Your task to perform on an android device: Go to CNN.com Image 0: 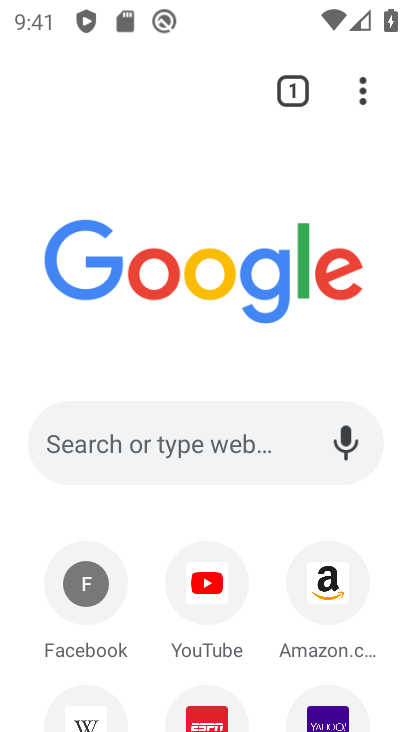
Step 0: drag from (243, 691) to (245, 306)
Your task to perform on an android device: Go to CNN.com Image 1: 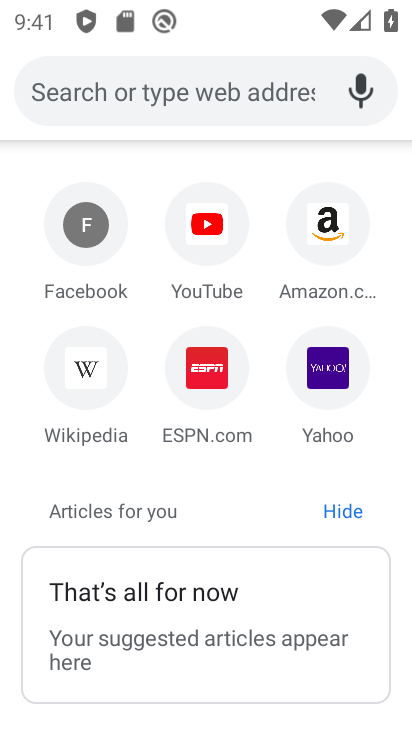
Step 1: click (157, 87)
Your task to perform on an android device: Go to CNN.com Image 2: 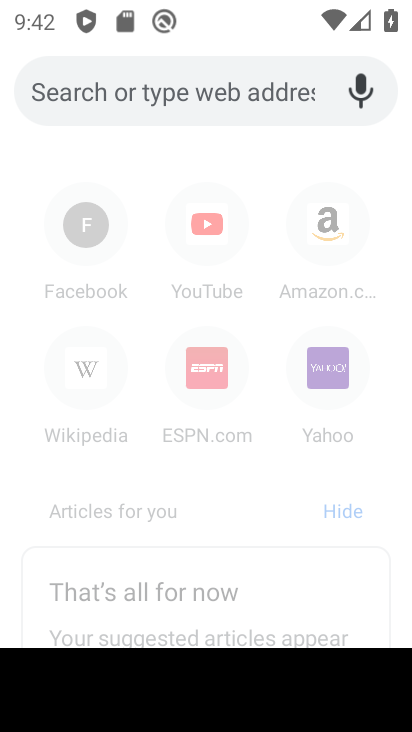
Step 2: type "www.cnn.com"
Your task to perform on an android device: Go to CNN.com Image 3: 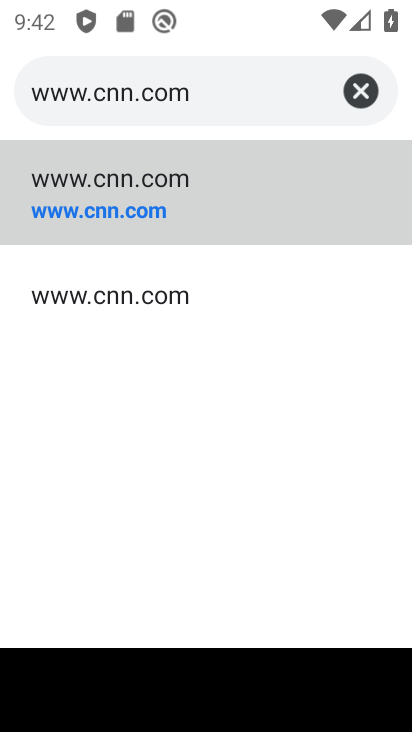
Step 3: click (103, 216)
Your task to perform on an android device: Go to CNN.com Image 4: 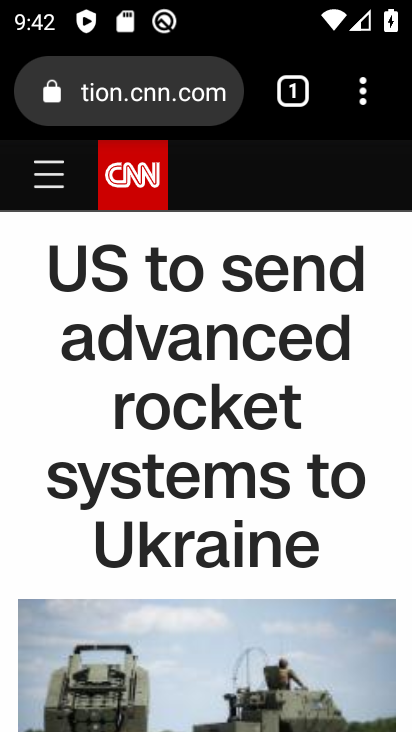
Step 4: task complete